Your task to perform on an android device: turn pop-ups off in chrome Image 0: 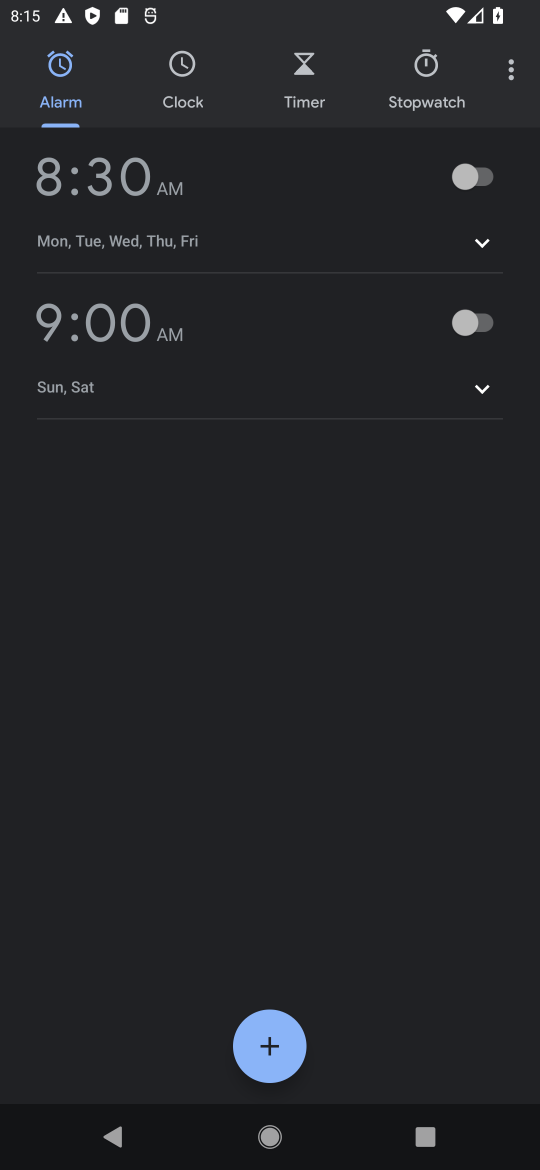
Step 0: press home button
Your task to perform on an android device: turn pop-ups off in chrome Image 1: 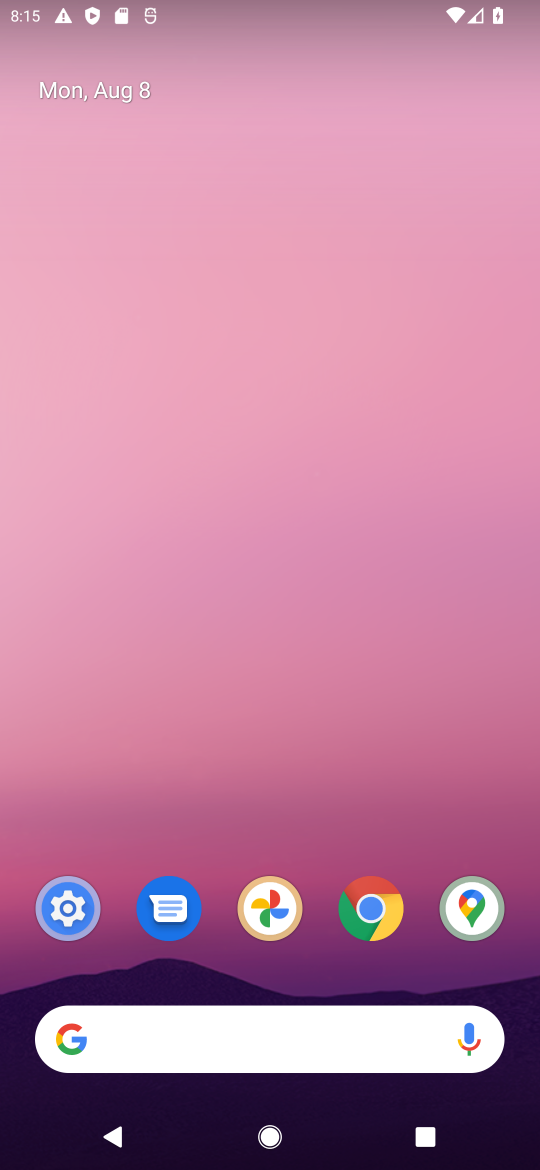
Step 1: click (382, 922)
Your task to perform on an android device: turn pop-ups off in chrome Image 2: 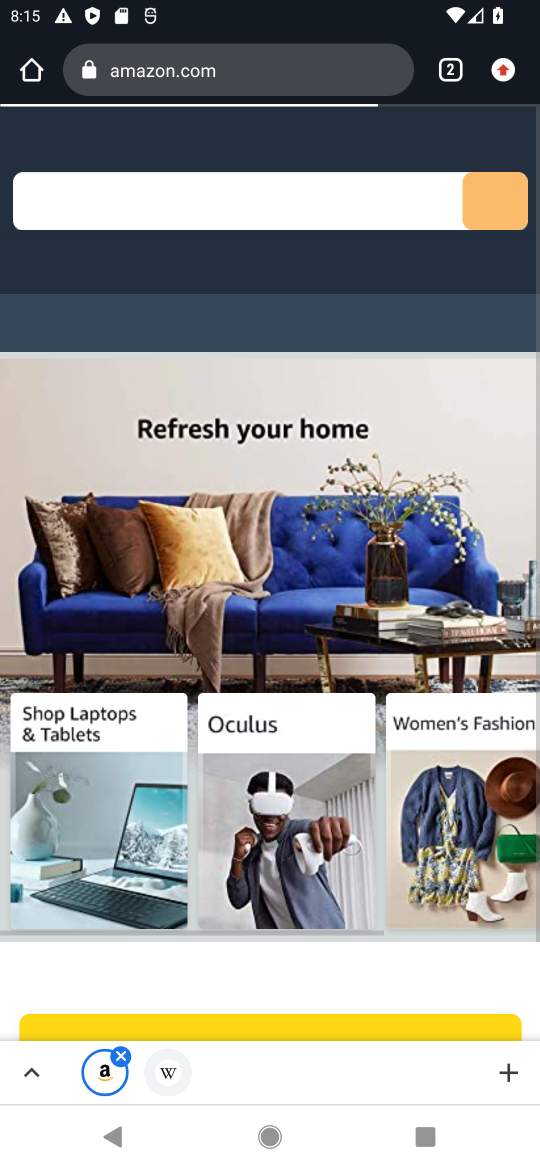
Step 2: click (508, 63)
Your task to perform on an android device: turn pop-ups off in chrome Image 3: 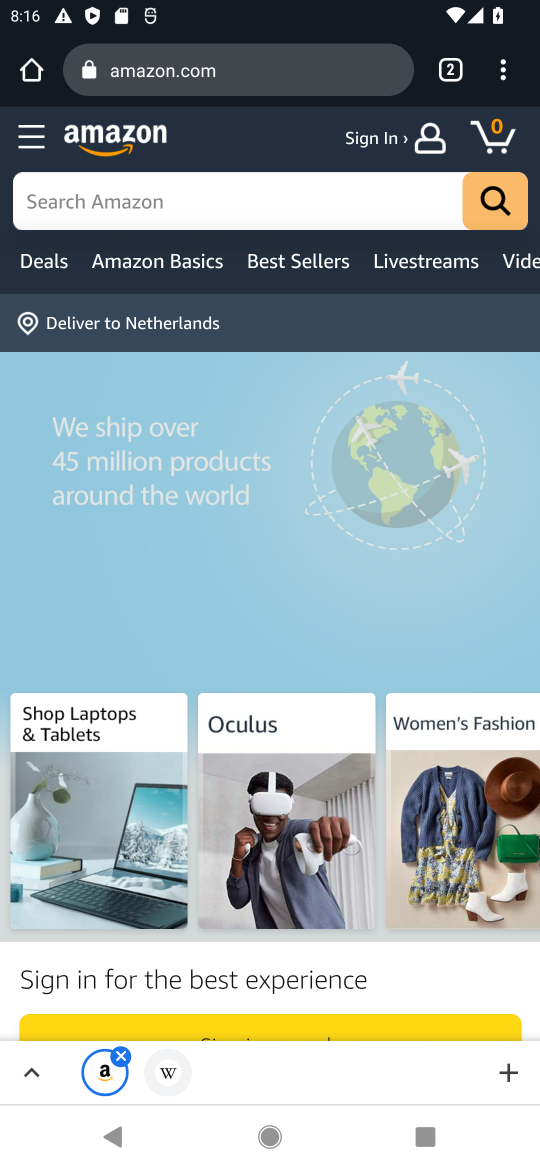
Step 3: click (508, 63)
Your task to perform on an android device: turn pop-ups off in chrome Image 4: 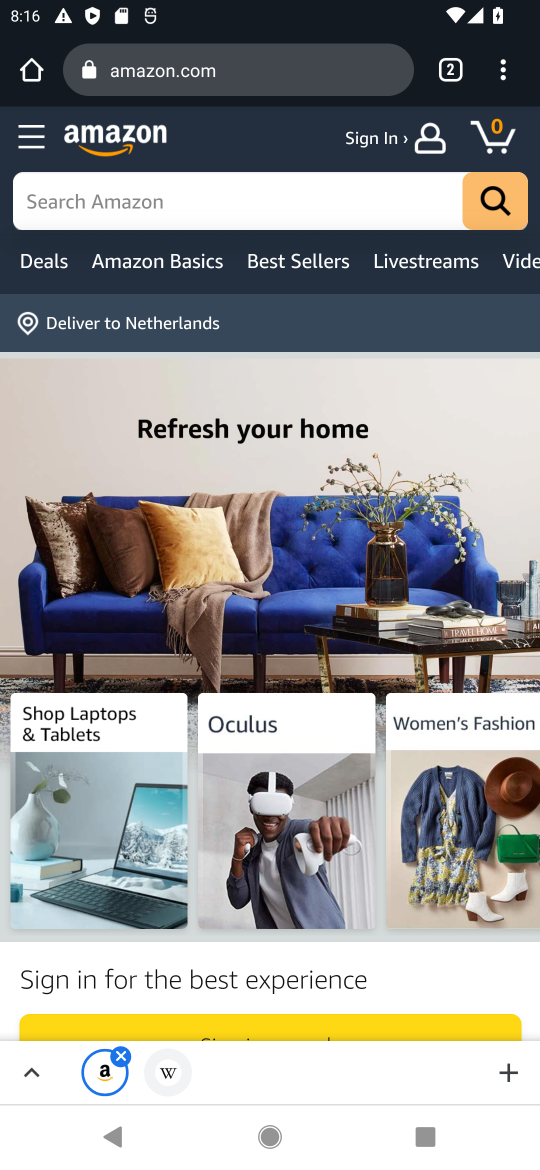
Step 4: click (524, 64)
Your task to perform on an android device: turn pop-ups off in chrome Image 5: 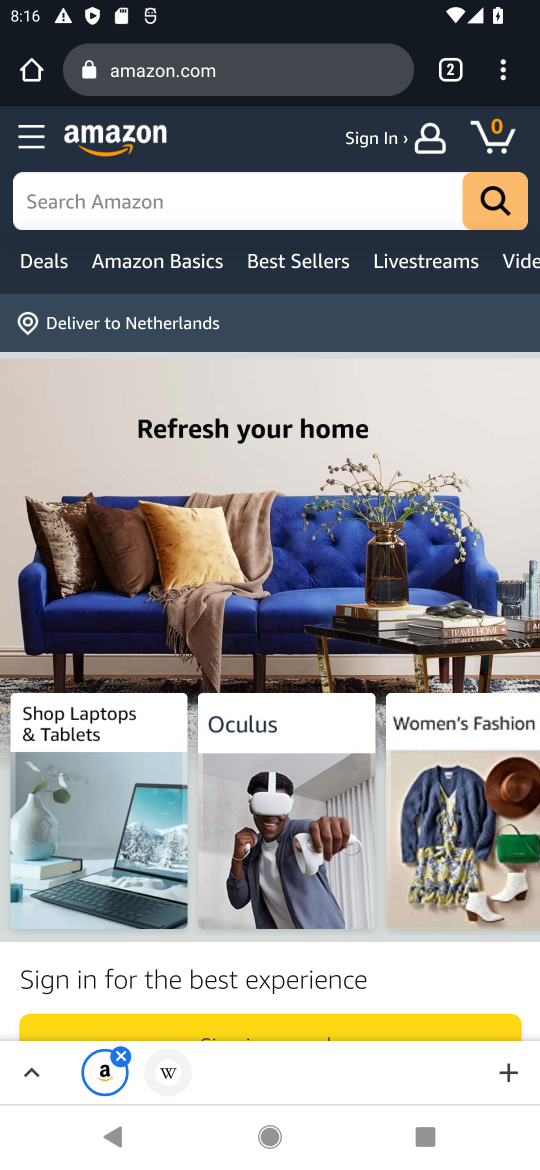
Step 5: click (507, 59)
Your task to perform on an android device: turn pop-ups off in chrome Image 6: 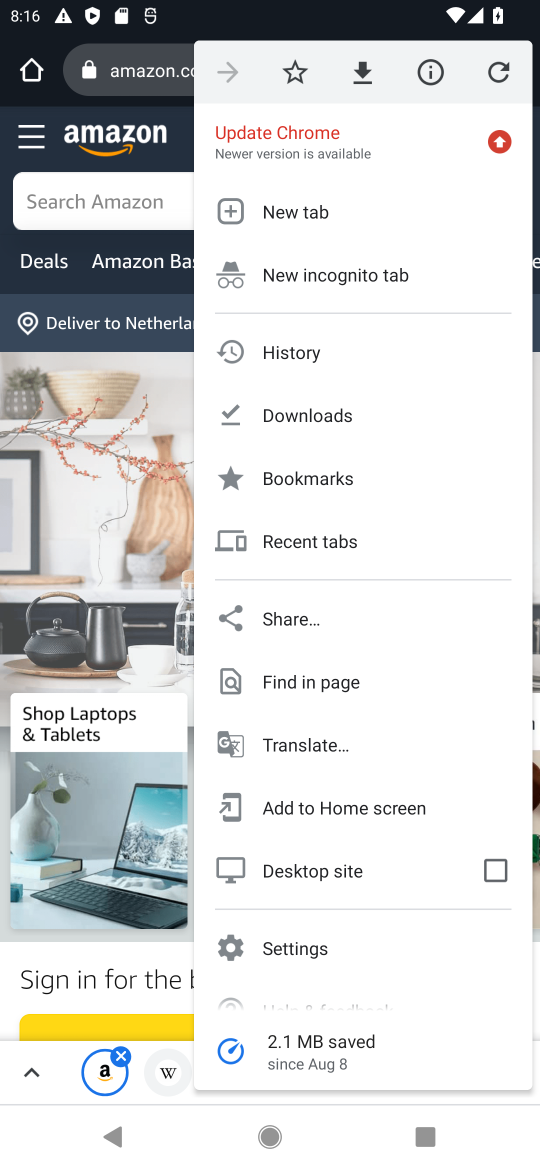
Step 6: click (289, 962)
Your task to perform on an android device: turn pop-ups off in chrome Image 7: 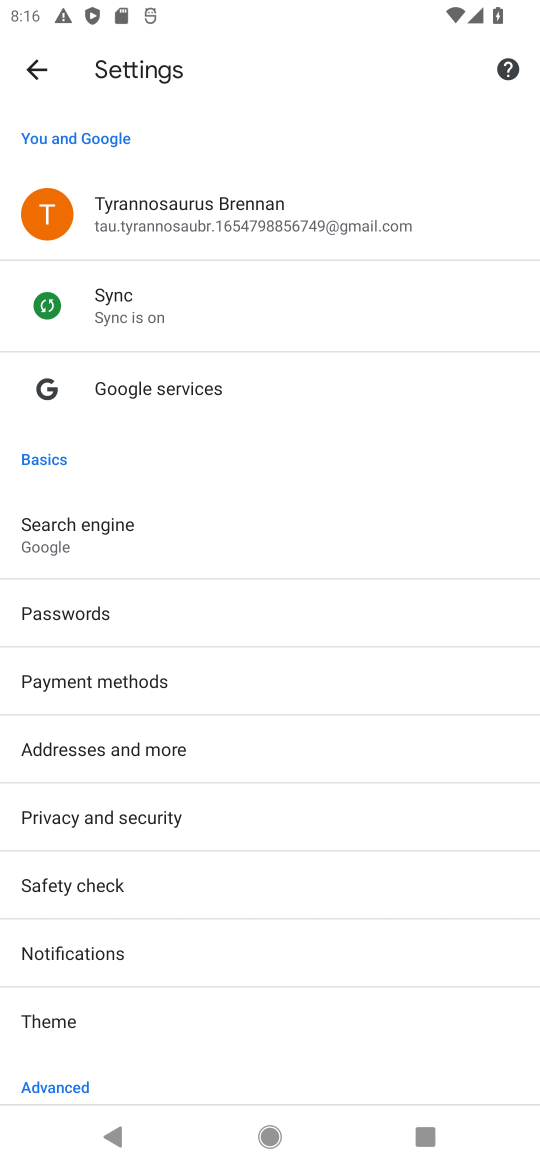
Step 7: drag from (195, 1024) to (333, 89)
Your task to perform on an android device: turn pop-ups off in chrome Image 8: 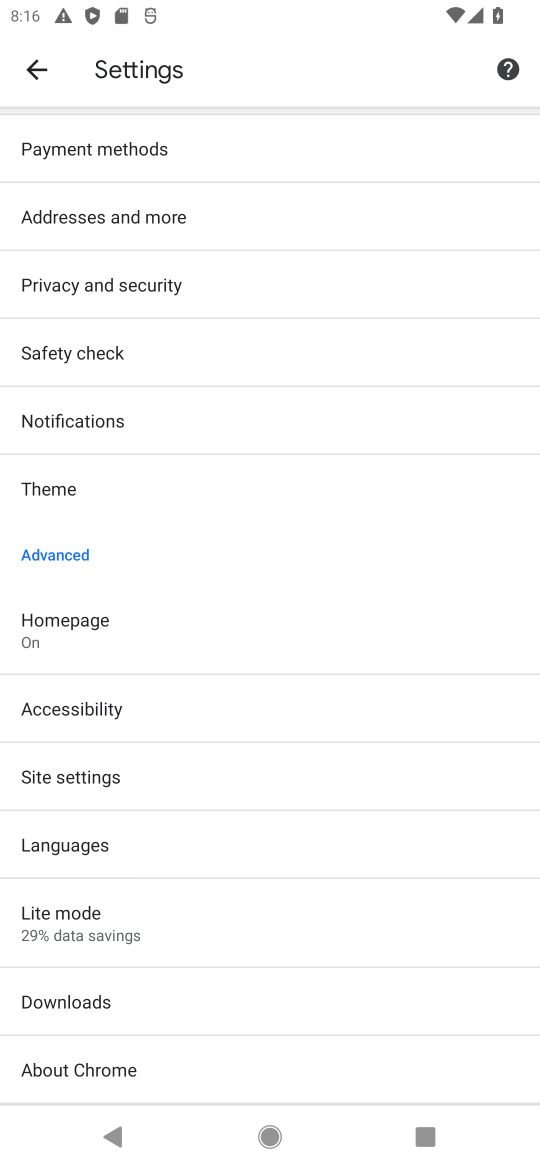
Step 8: drag from (198, 990) to (300, 52)
Your task to perform on an android device: turn pop-ups off in chrome Image 9: 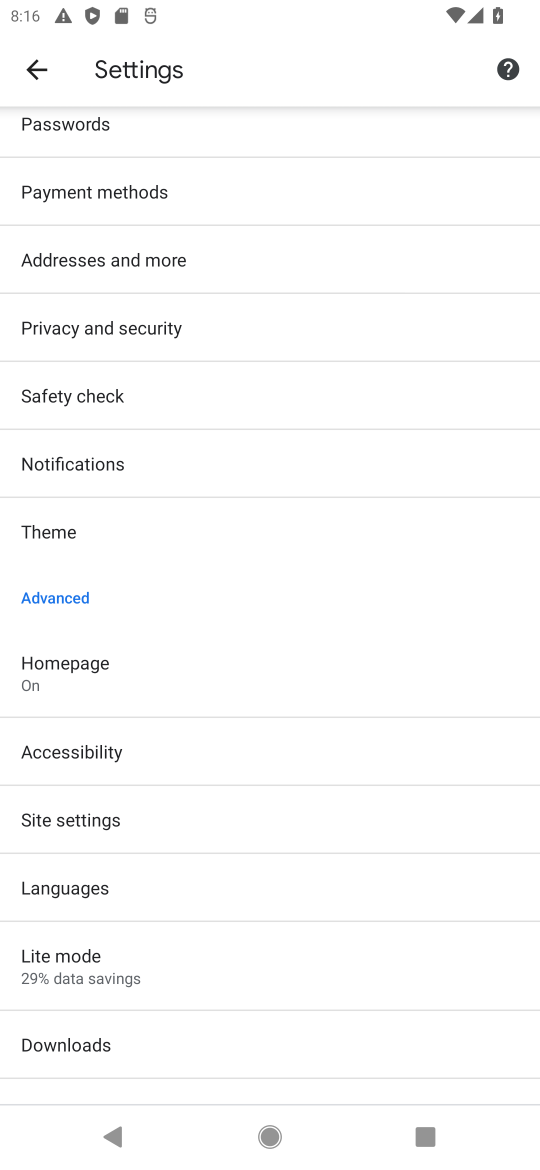
Step 9: click (115, 833)
Your task to perform on an android device: turn pop-ups off in chrome Image 10: 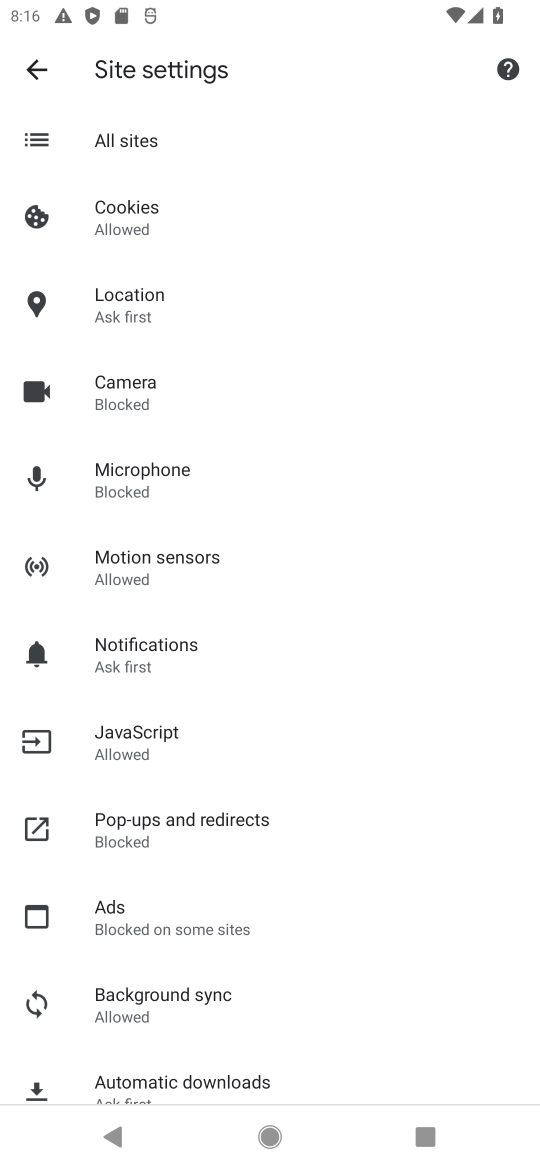
Step 10: click (215, 822)
Your task to perform on an android device: turn pop-ups off in chrome Image 11: 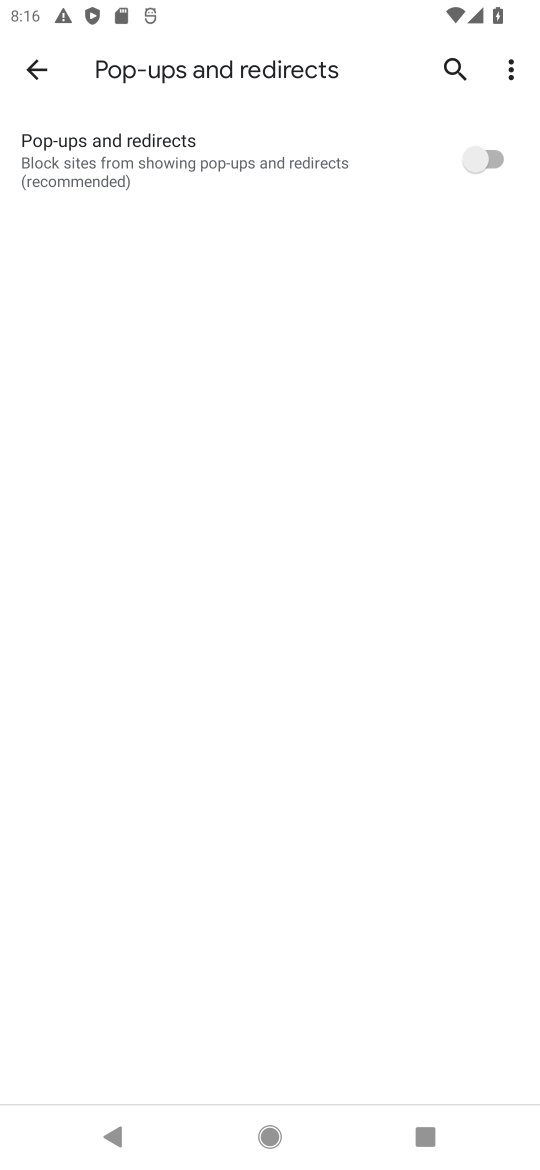
Step 11: task complete